Your task to perform on an android device: check storage Image 0: 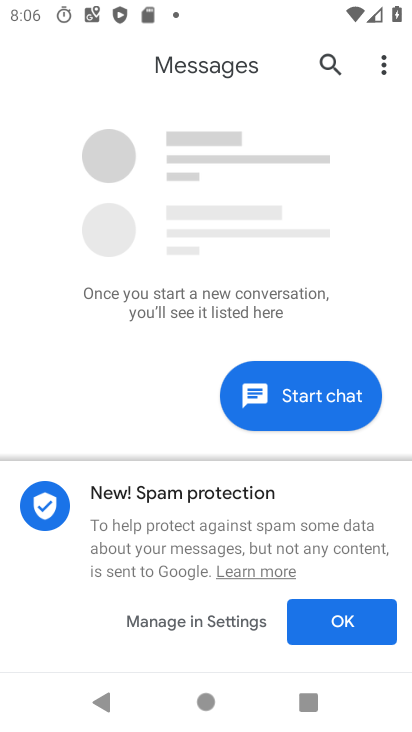
Step 0: press home button
Your task to perform on an android device: check storage Image 1: 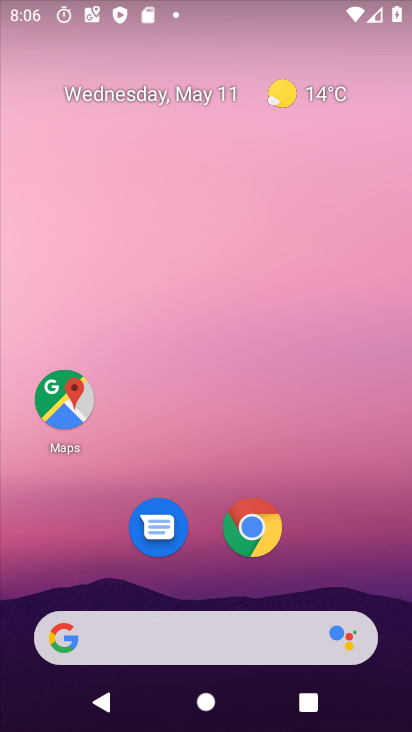
Step 1: drag from (242, 631) to (216, 153)
Your task to perform on an android device: check storage Image 2: 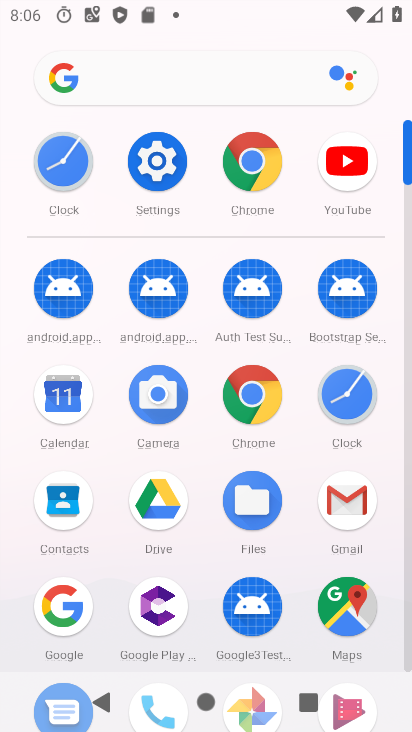
Step 2: click (158, 168)
Your task to perform on an android device: check storage Image 3: 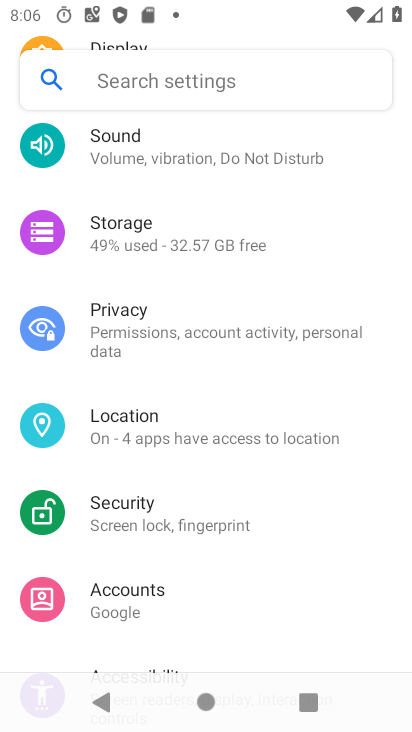
Step 3: drag from (244, 308) to (227, 531)
Your task to perform on an android device: check storage Image 4: 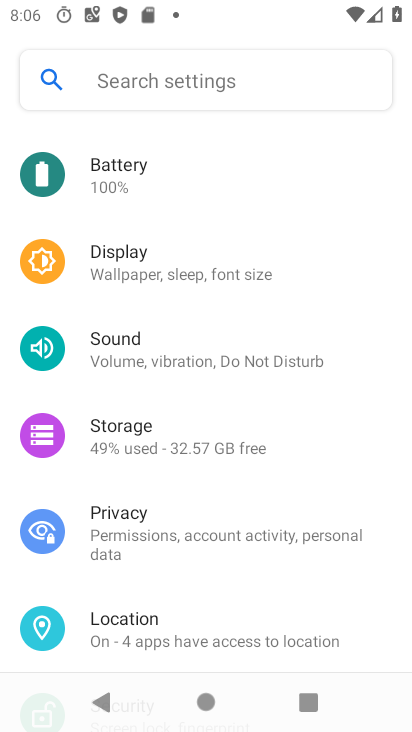
Step 4: click (261, 445)
Your task to perform on an android device: check storage Image 5: 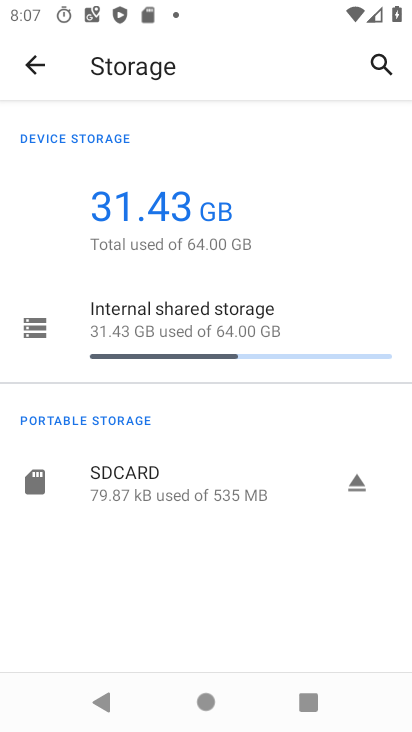
Step 5: click (228, 319)
Your task to perform on an android device: check storage Image 6: 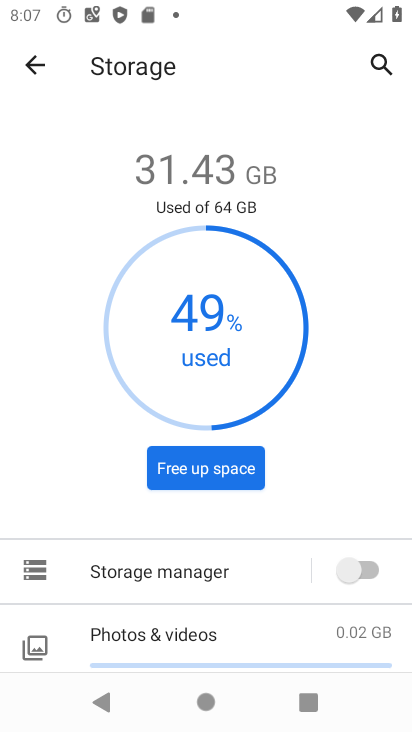
Step 6: task complete